Your task to perform on an android device: Turn on the flashlight Image 0: 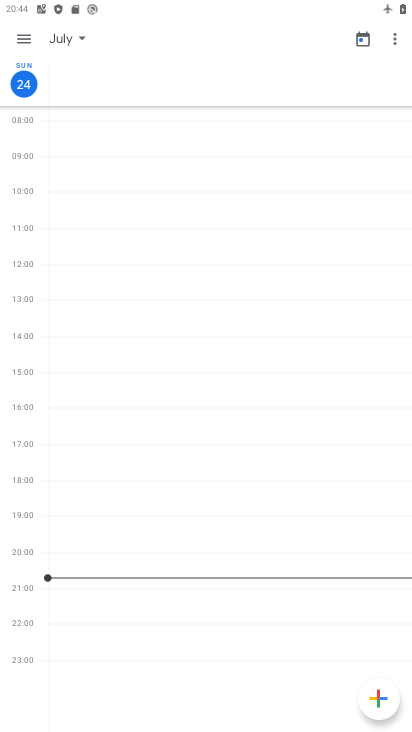
Step 0: press home button
Your task to perform on an android device: Turn on the flashlight Image 1: 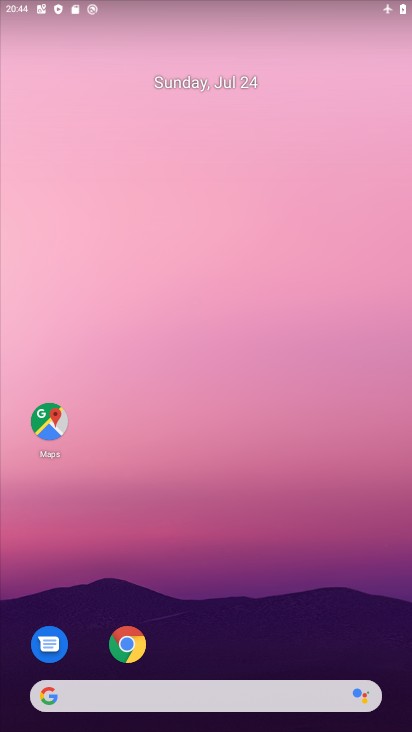
Step 1: drag from (252, 14) to (265, 390)
Your task to perform on an android device: Turn on the flashlight Image 2: 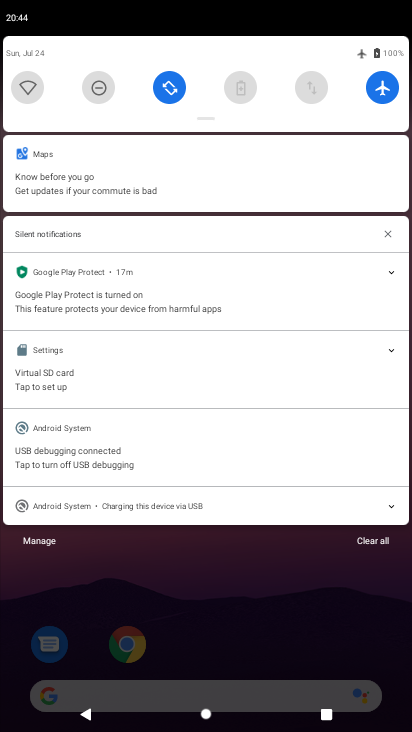
Step 2: drag from (204, 119) to (197, 445)
Your task to perform on an android device: Turn on the flashlight Image 3: 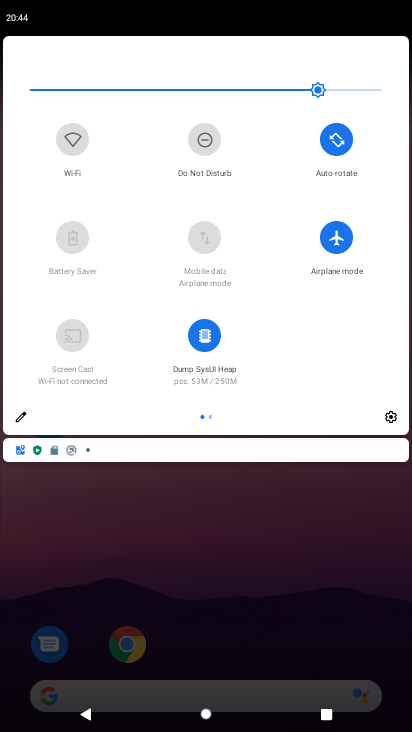
Step 3: click (19, 415)
Your task to perform on an android device: Turn on the flashlight Image 4: 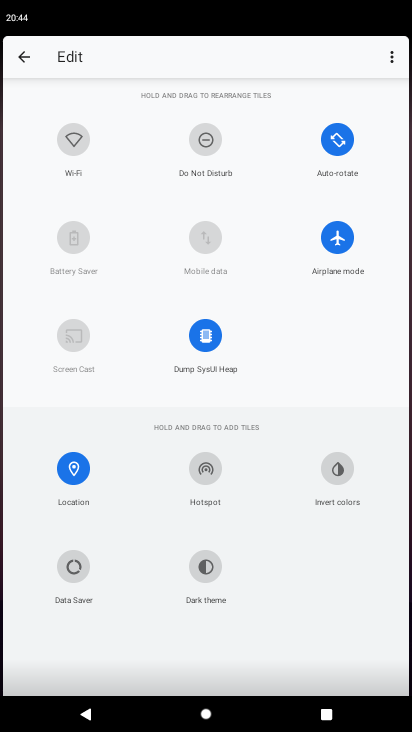
Step 4: task complete